Your task to perform on an android device: turn off data saver in the chrome app Image 0: 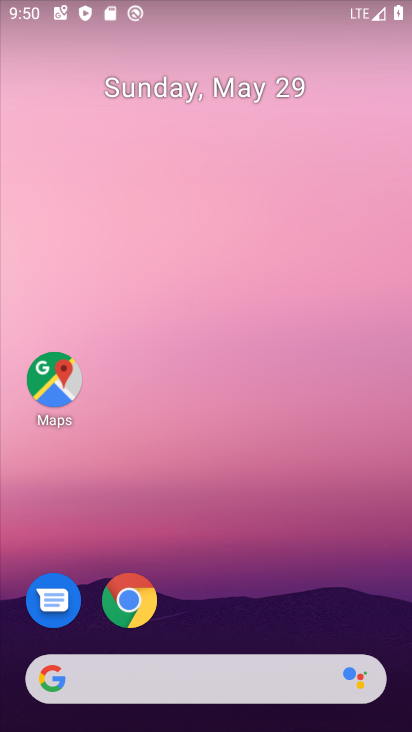
Step 0: drag from (273, 586) to (303, 169)
Your task to perform on an android device: turn off data saver in the chrome app Image 1: 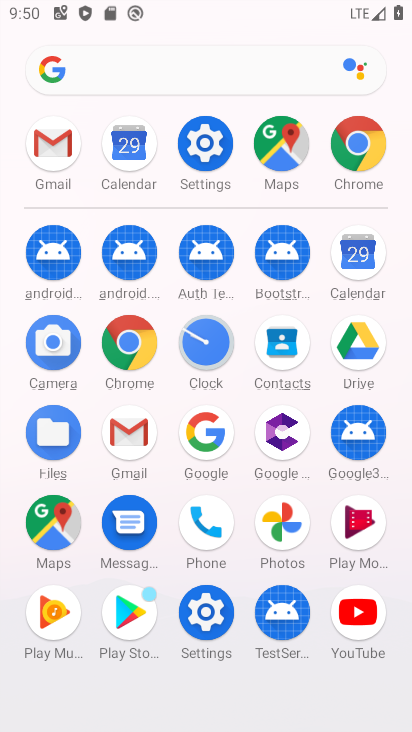
Step 1: click (133, 344)
Your task to perform on an android device: turn off data saver in the chrome app Image 2: 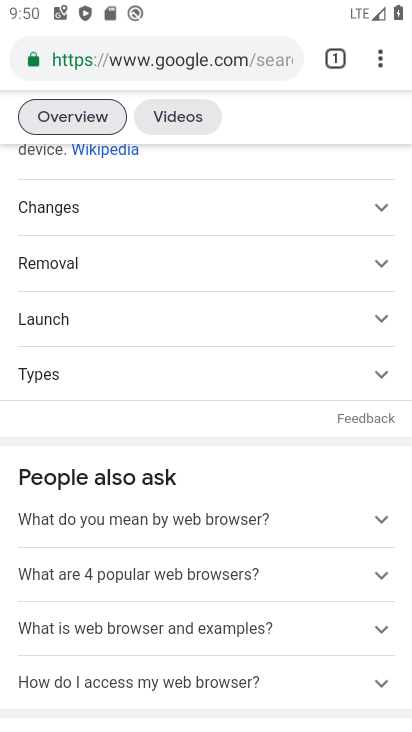
Step 2: drag from (382, 55) to (187, 638)
Your task to perform on an android device: turn off data saver in the chrome app Image 3: 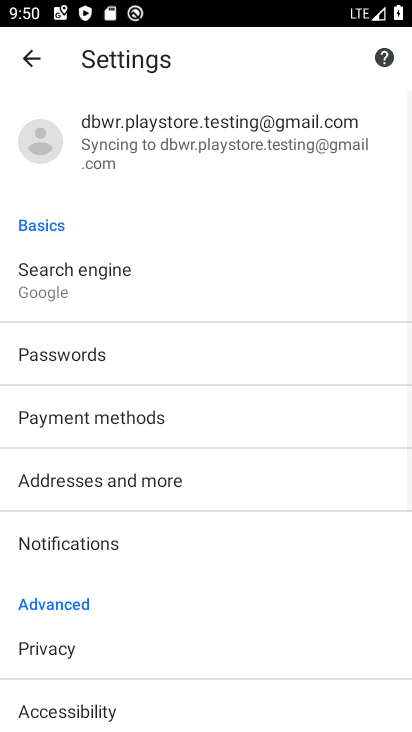
Step 3: drag from (104, 661) to (196, 260)
Your task to perform on an android device: turn off data saver in the chrome app Image 4: 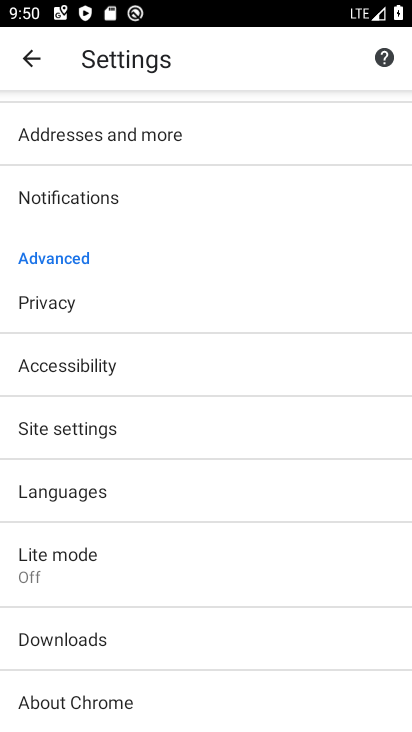
Step 4: click (35, 556)
Your task to perform on an android device: turn off data saver in the chrome app Image 5: 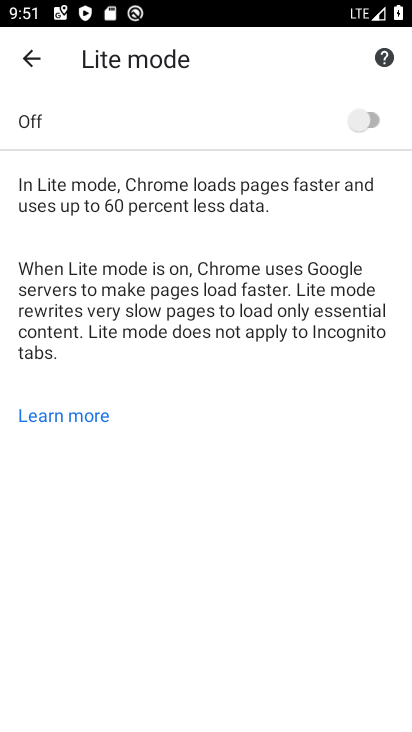
Step 5: task complete